Your task to perform on an android device: Search for Mexican restaurants on Maps Image 0: 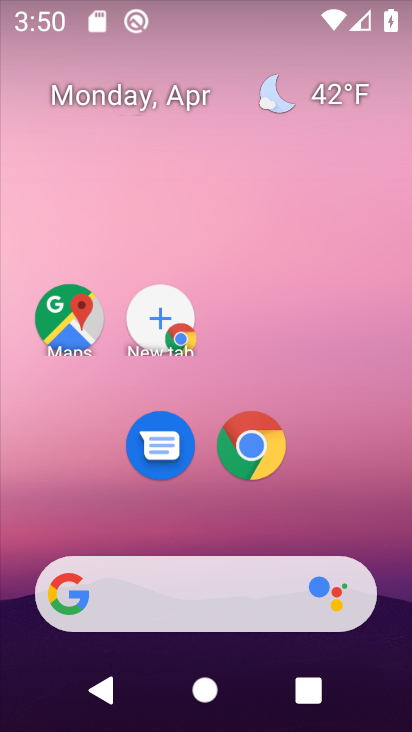
Step 0: drag from (205, 501) to (233, 59)
Your task to perform on an android device: Search for Mexican restaurants on Maps Image 1: 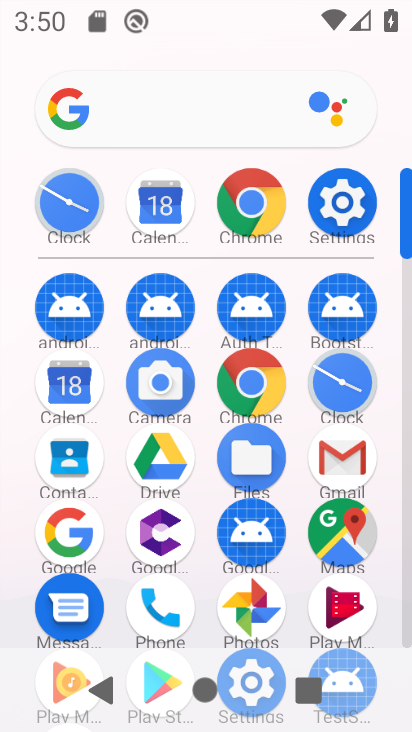
Step 1: click (333, 529)
Your task to perform on an android device: Search for Mexican restaurants on Maps Image 2: 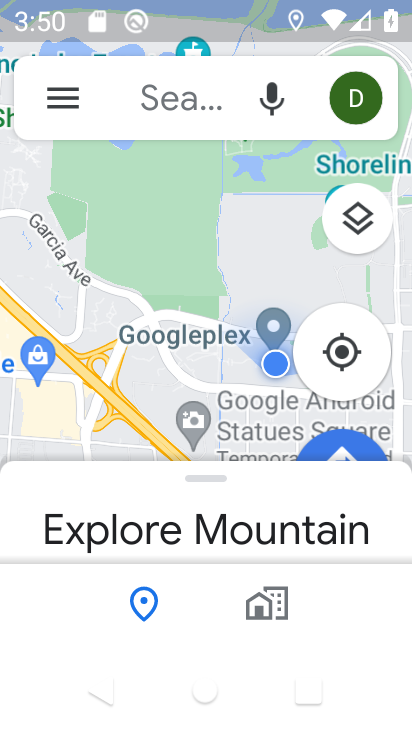
Step 2: click (142, 89)
Your task to perform on an android device: Search for Mexican restaurants on Maps Image 3: 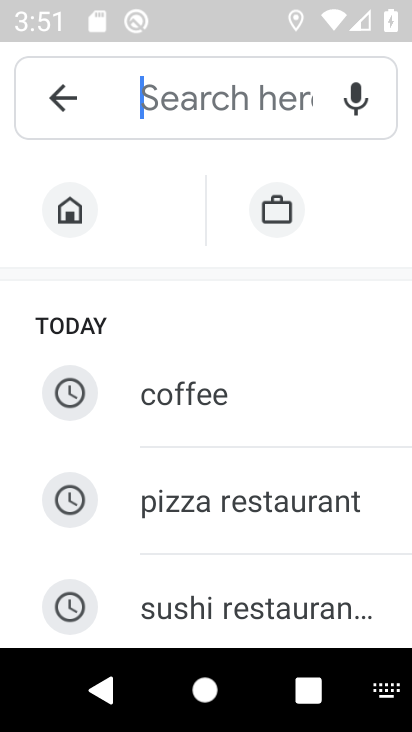
Step 3: drag from (225, 568) to (234, 199)
Your task to perform on an android device: Search for Mexican restaurants on Maps Image 4: 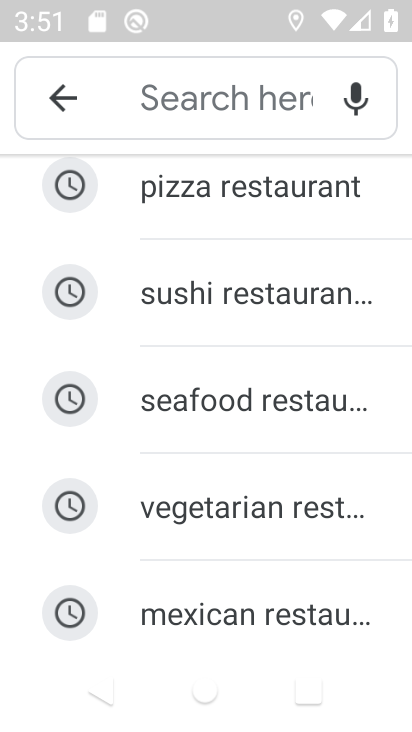
Step 4: click (206, 614)
Your task to perform on an android device: Search for Mexican restaurants on Maps Image 5: 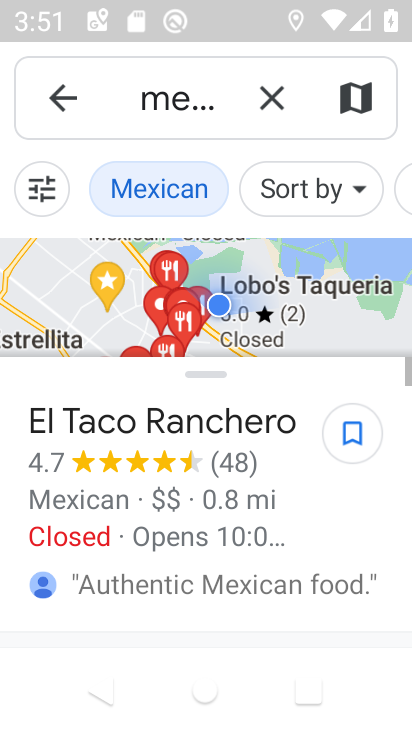
Step 5: task complete